Your task to perform on an android device: turn on location history Image 0: 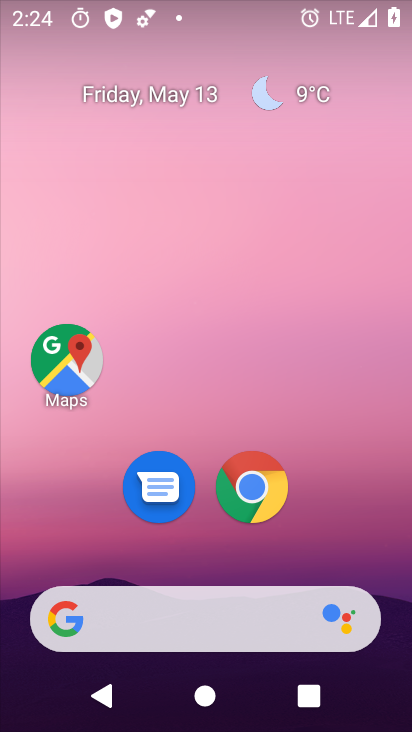
Step 0: drag from (197, 552) to (213, 92)
Your task to perform on an android device: turn on location history Image 1: 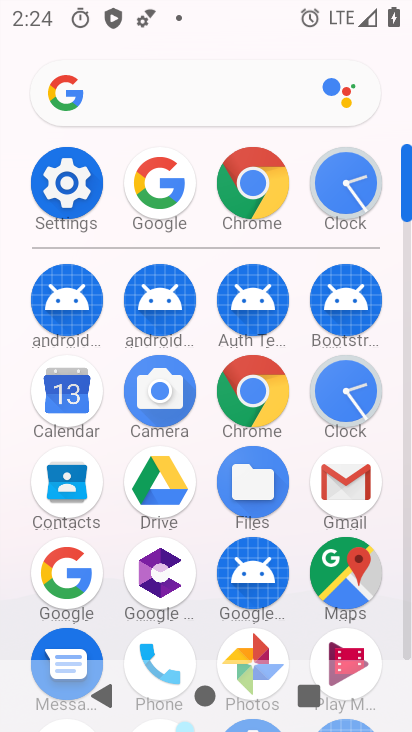
Step 1: click (66, 184)
Your task to perform on an android device: turn on location history Image 2: 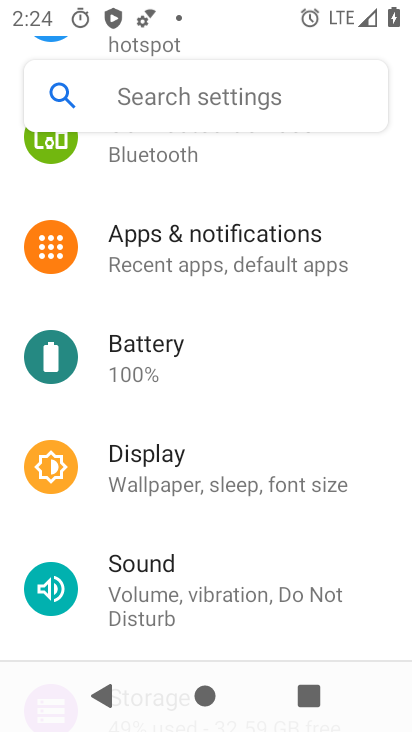
Step 2: drag from (243, 528) to (291, 80)
Your task to perform on an android device: turn on location history Image 3: 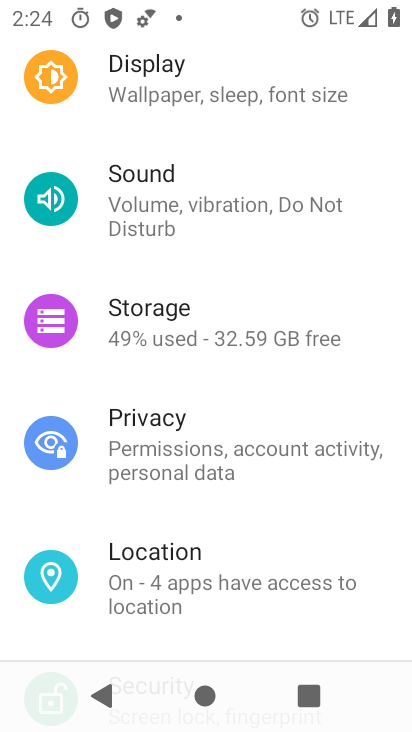
Step 3: click (145, 556)
Your task to perform on an android device: turn on location history Image 4: 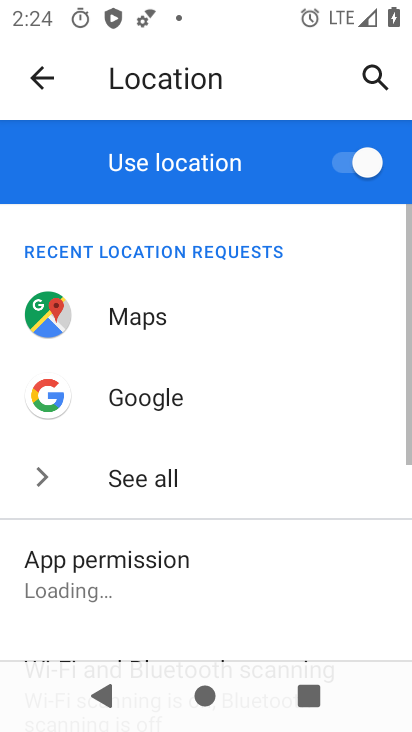
Step 4: drag from (234, 526) to (237, 101)
Your task to perform on an android device: turn on location history Image 5: 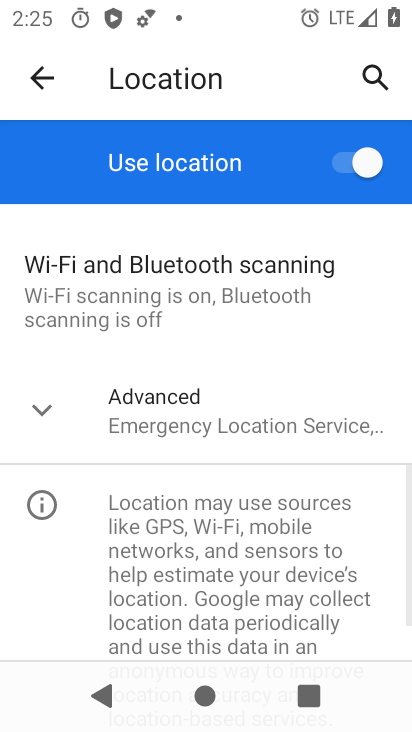
Step 5: click (170, 430)
Your task to perform on an android device: turn on location history Image 6: 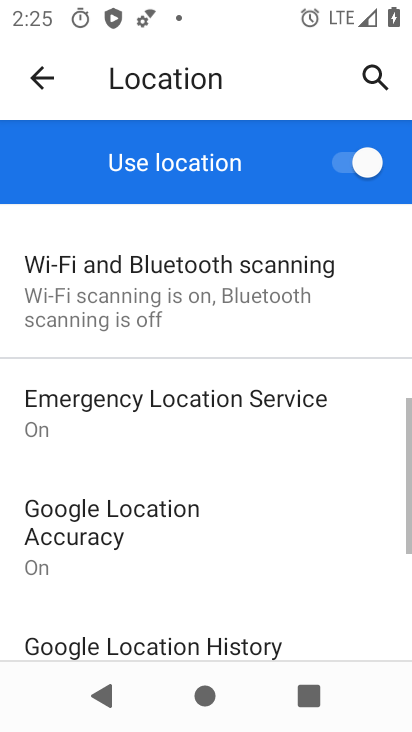
Step 6: drag from (250, 601) to (225, 435)
Your task to perform on an android device: turn on location history Image 7: 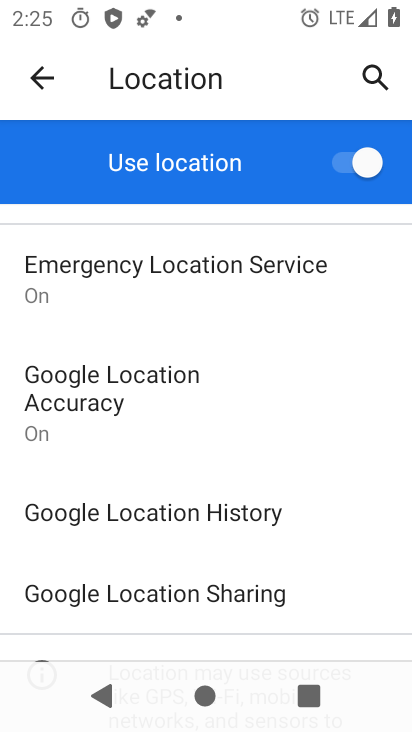
Step 7: click (172, 509)
Your task to perform on an android device: turn on location history Image 8: 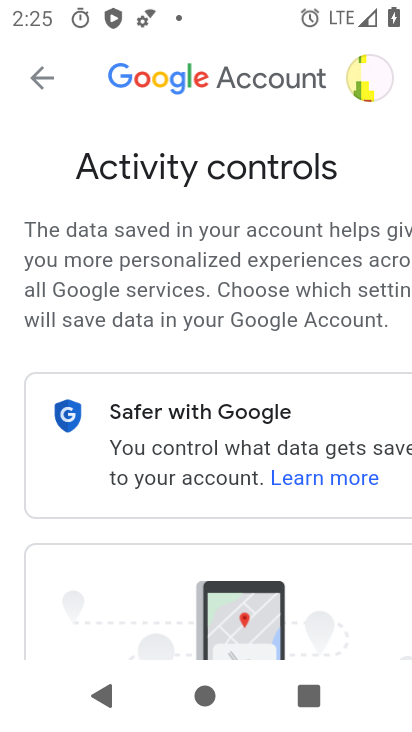
Step 8: task complete